Your task to perform on an android device: Open battery settings Image 0: 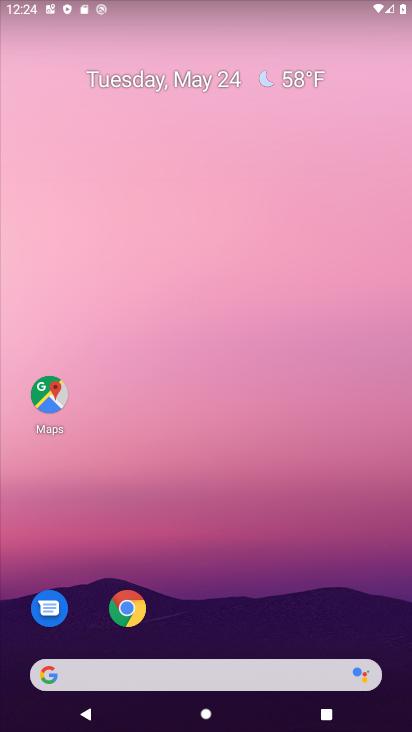
Step 0: press home button
Your task to perform on an android device: Open battery settings Image 1: 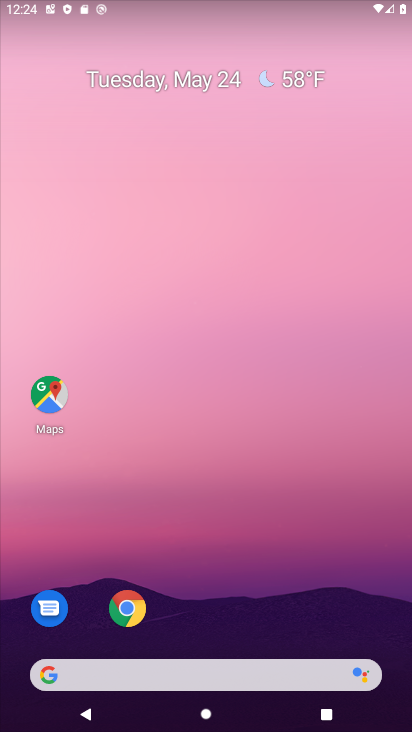
Step 1: drag from (281, 687) to (233, 2)
Your task to perform on an android device: Open battery settings Image 2: 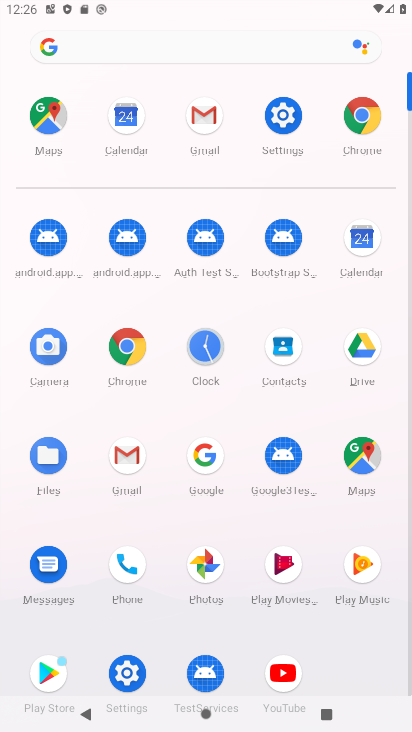
Step 2: click (272, 123)
Your task to perform on an android device: Open battery settings Image 3: 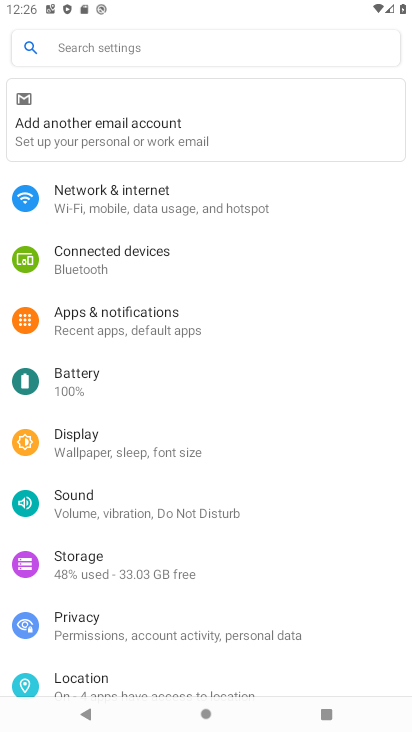
Step 3: click (124, 392)
Your task to perform on an android device: Open battery settings Image 4: 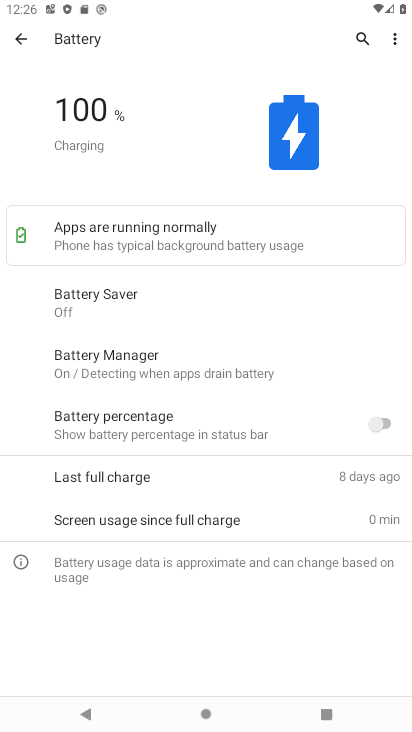
Step 4: task complete